Your task to perform on an android device: change text size in settings app Image 0: 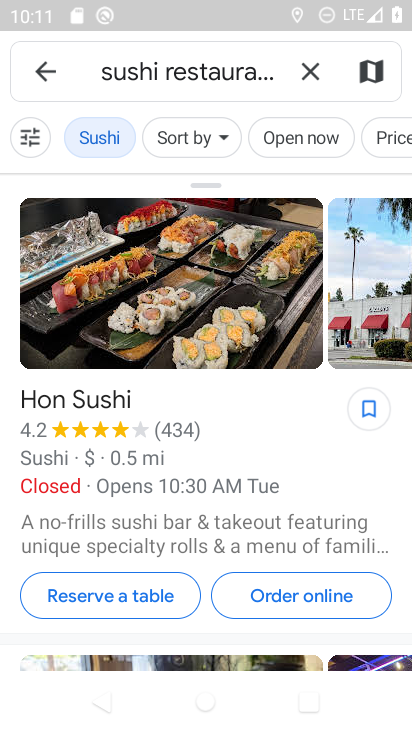
Step 0: press home button
Your task to perform on an android device: change text size in settings app Image 1: 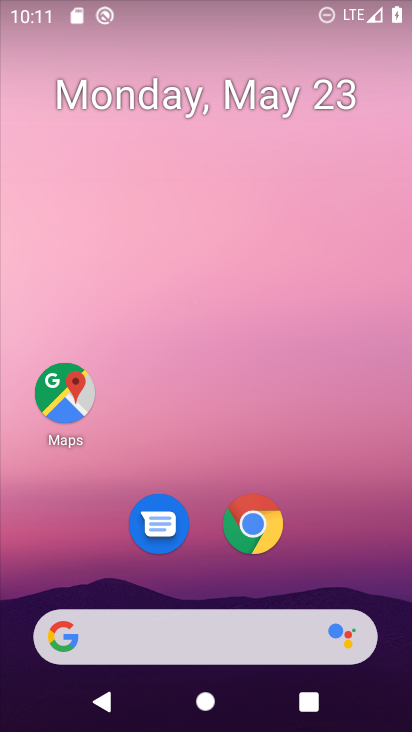
Step 1: drag from (202, 453) to (226, 42)
Your task to perform on an android device: change text size in settings app Image 2: 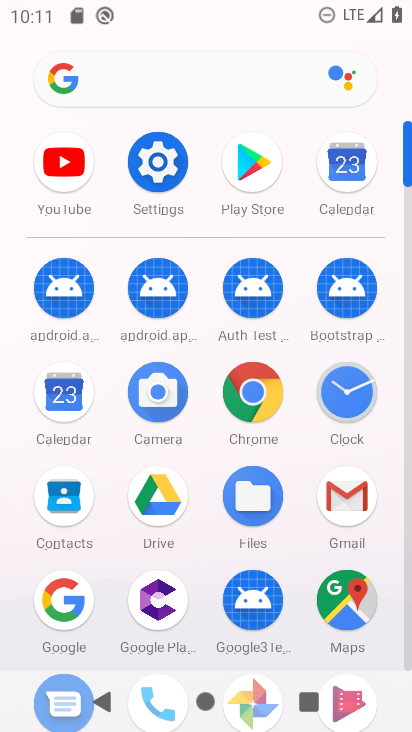
Step 2: click (159, 165)
Your task to perform on an android device: change text size in settings app Image 3: 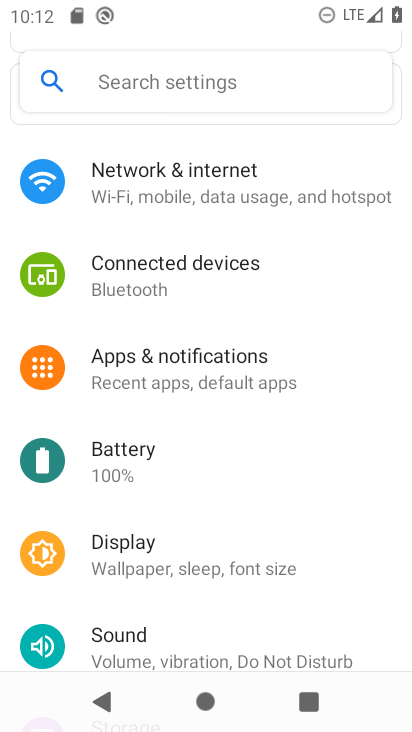
Step 3: click (199, 558)
Your task to perform on an android device: change text size in settings app Image 4: 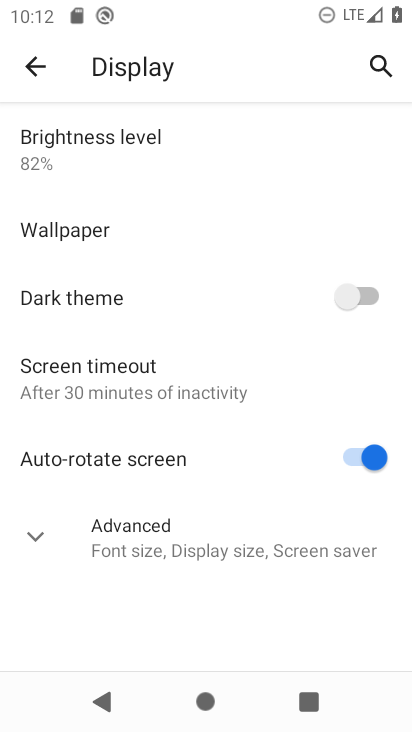
Step 4: click (39, 527)
Your task to perform on an android device: change text size in settings app Image 5: 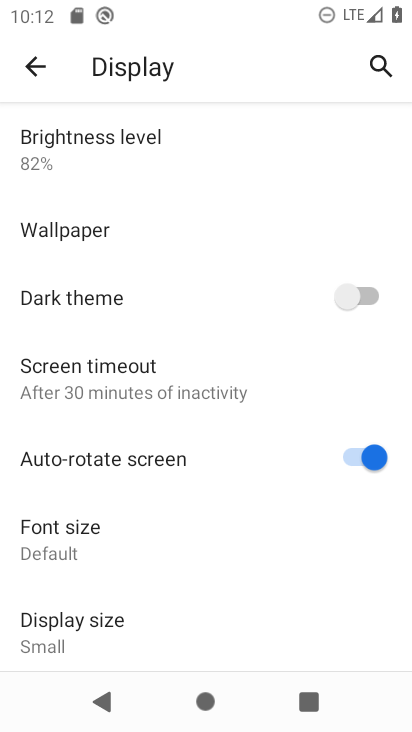
Step 5: click (41, 537)
Your task to perform on an android device: change text size in settings app Image 6: 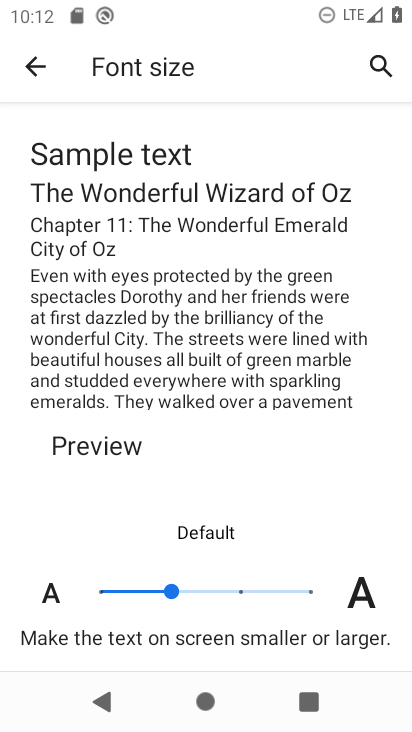
Step 6: click (99, 589)
Your task to perform on an android device: change text size in settings app Image 7: 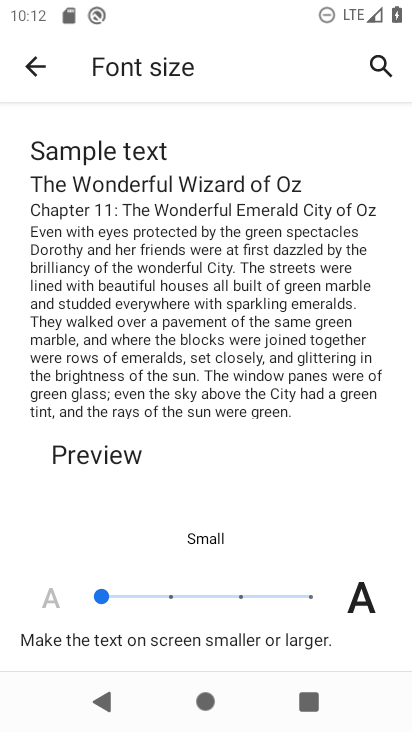
Step 7: click (38, 55)
Your task to perform on an android device: change text size in settings app Image 8: 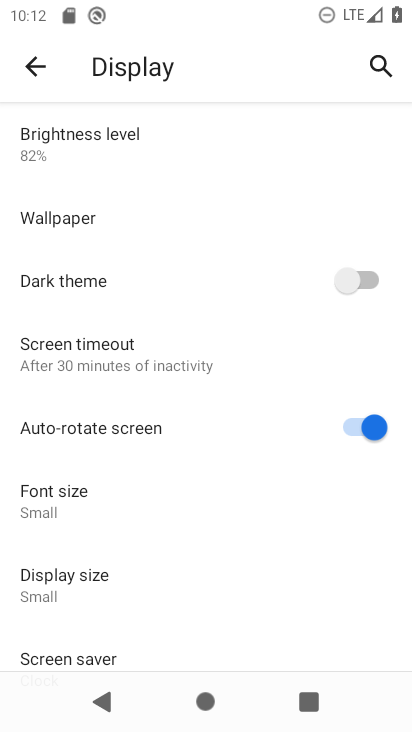
Step 8: click (104, 494)
Your task to perform on an android device: change text size in settings app Image 9: 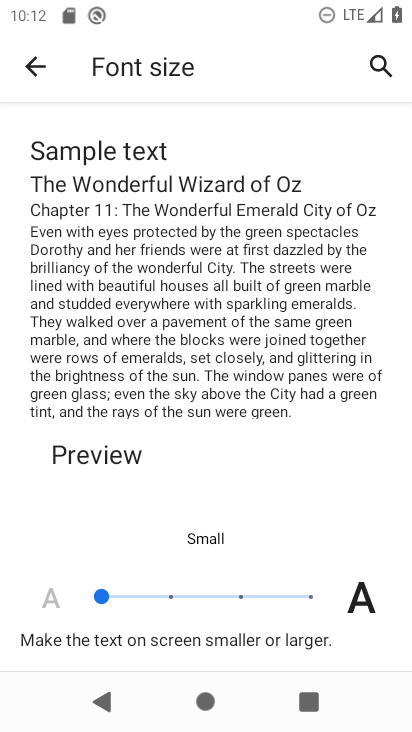
Step 9: task complete